Your task to perform on an android device: Is it going to rain this weekend? Image 0: 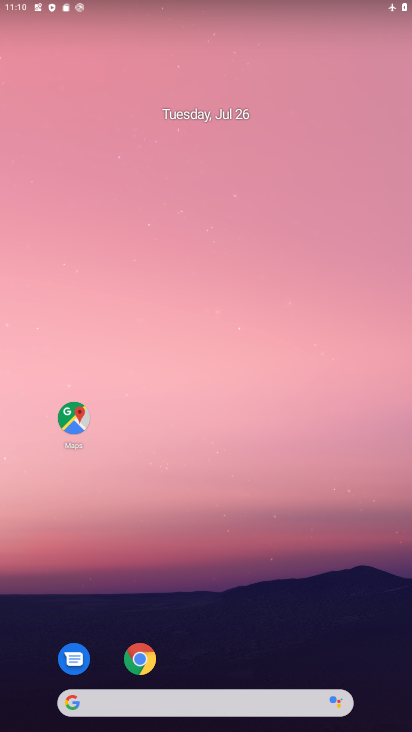
Step 0: drag from (204, 700) to (259, 79)
Your task to perform on an android device: Is it going to rain this weekend? Image 1: 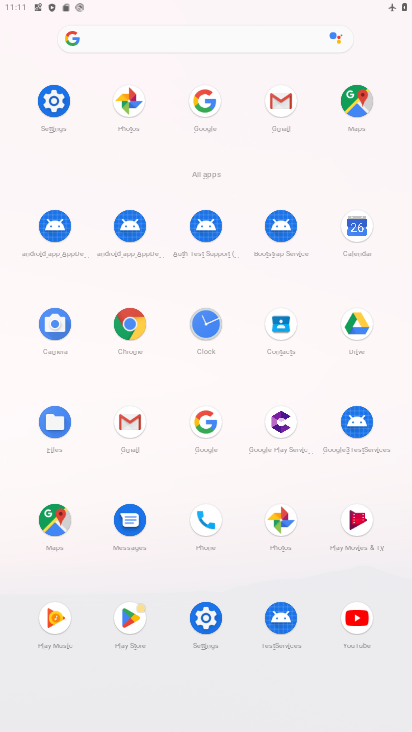
Step 1: click (203, 419)
Your task to perform on an android device: Is it going to rain this weekend? Image 2: 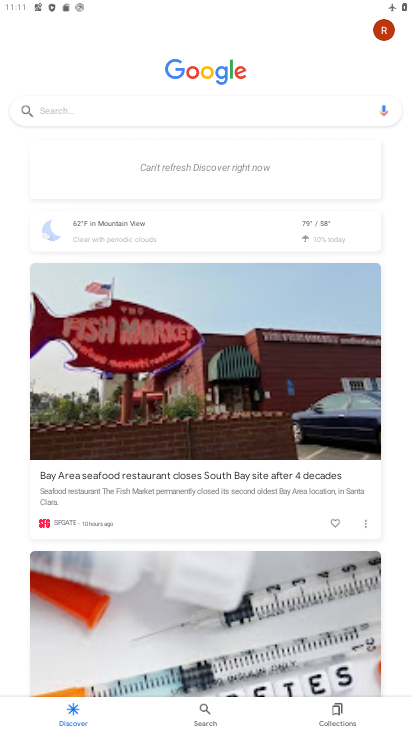
Step 2: click (285, 99)
Your task to perform on an android device: Is it going to rain this weekend? Image 3: 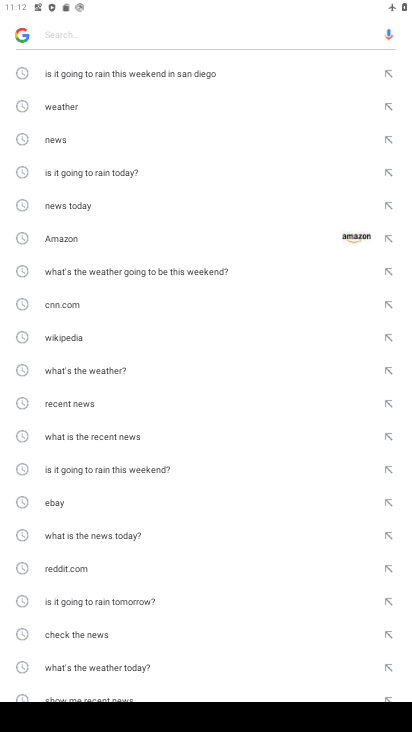
Step 3: type "Is it going to rain this weekend?"
Your task to perform on an android device: Is it going to rain this weekend? Image 4: 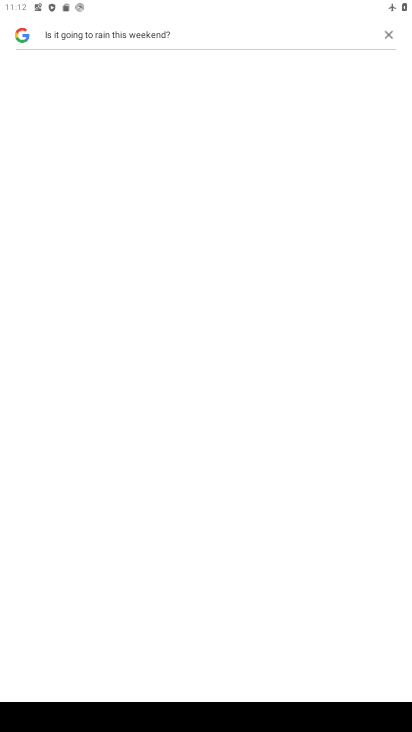
Step 4: task complete